Your task to perform on an android device: turn off location Image 0: 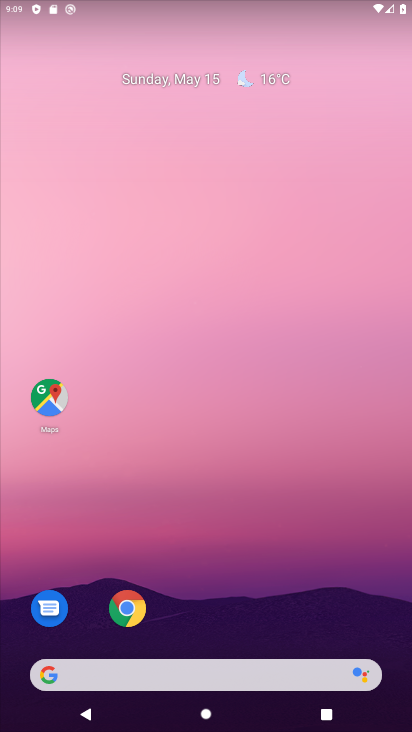
Step 0: drag from (197, 644) to (178, 33)
Your task to perform on an android device: turn off location Image 1: 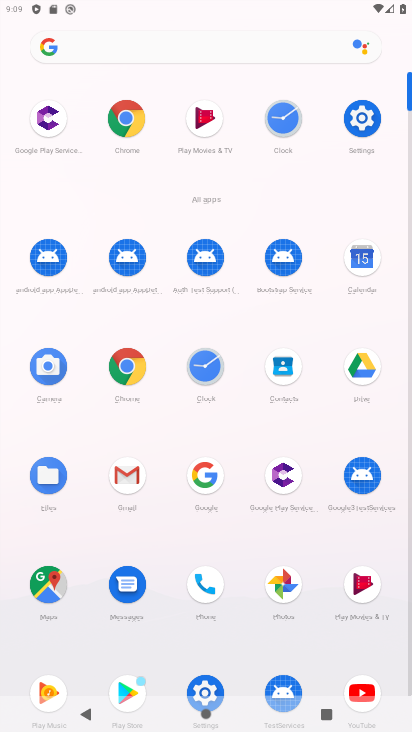
Step 1: click (369, 109)
Your task to perform on an android device: turn off location Image 2: 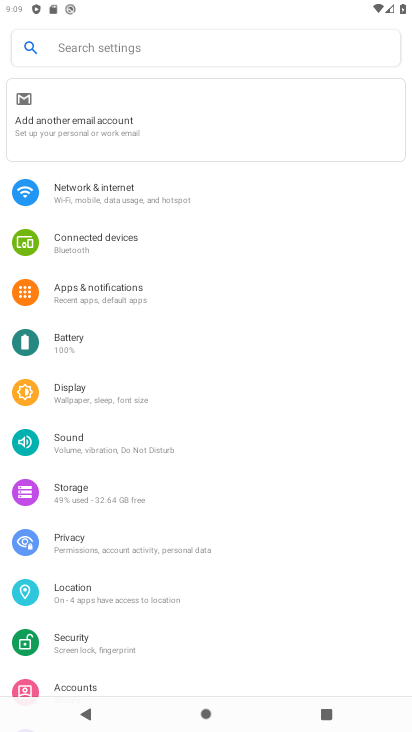
Step 2: click (71, 593)
Your task to perform on an android device: turn off location Image 3: 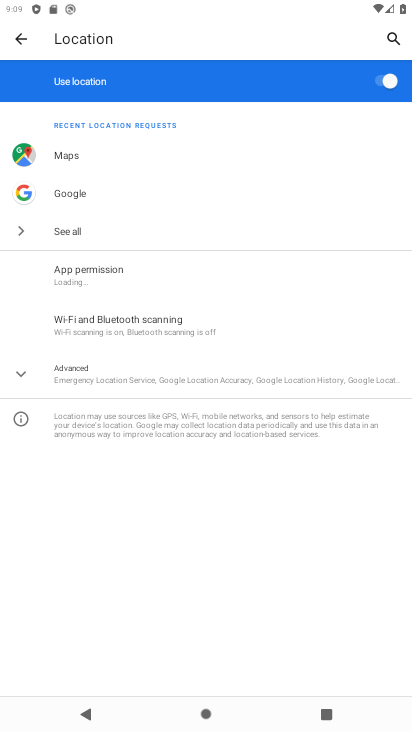
Step 3: click (368, 74)
Your task to perform on an android device: turn off location Image 4: 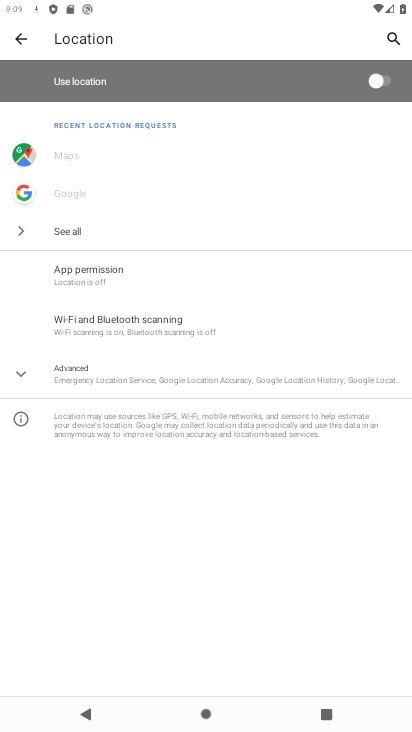
Step 4: task complete